Your task to perform on an android device: Go to notification settings Image 0: 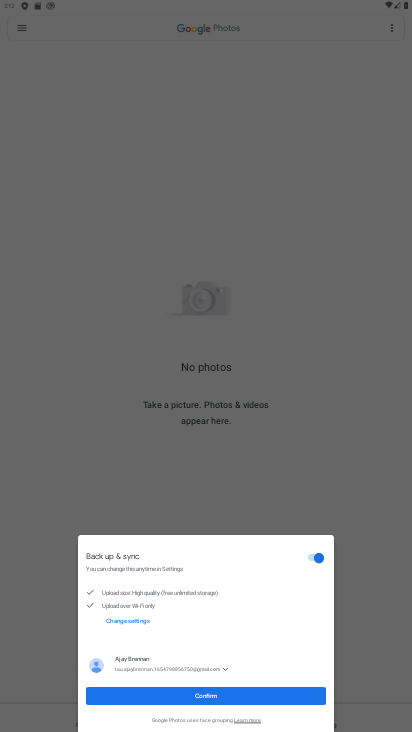
Step 0: press home button
Your task to perform on an android device: Go to notification settings Image 1: 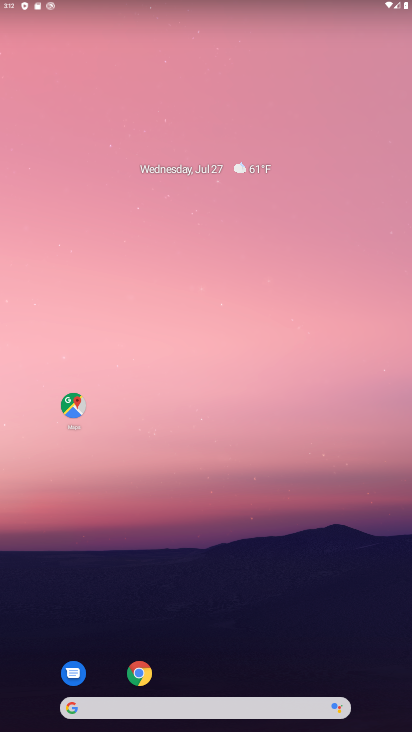
Step 1: drag from (354, 528) to (286, 12)
Your task to perform on an android device: Go to notification settings Image 2: 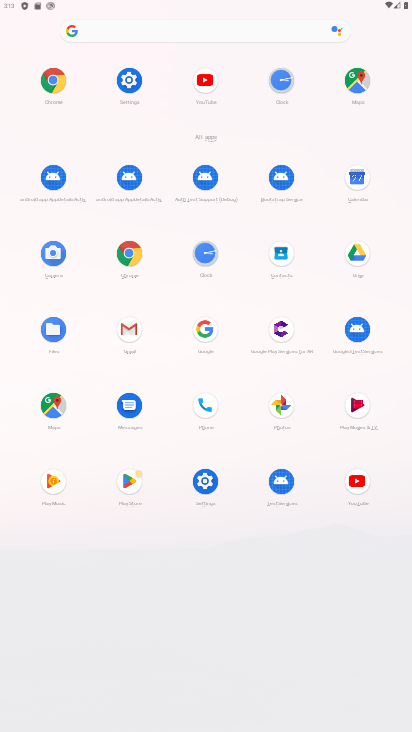
Step 2: click (205, 478)
Your task to perform on an android device: Go to notification settings Image 3: 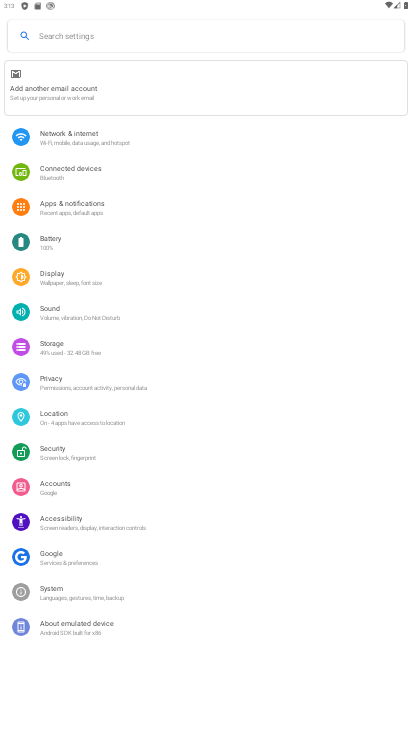
Step 3: click (87, 200)
Your task to perform on an android device: Go to notification settings Image 4: 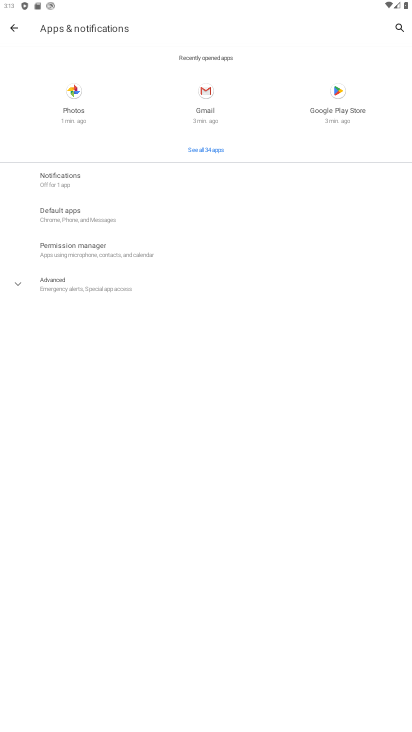
Step 4: click (118, 177)
Your task to perform on an android device: Go to notification settings Image 5: 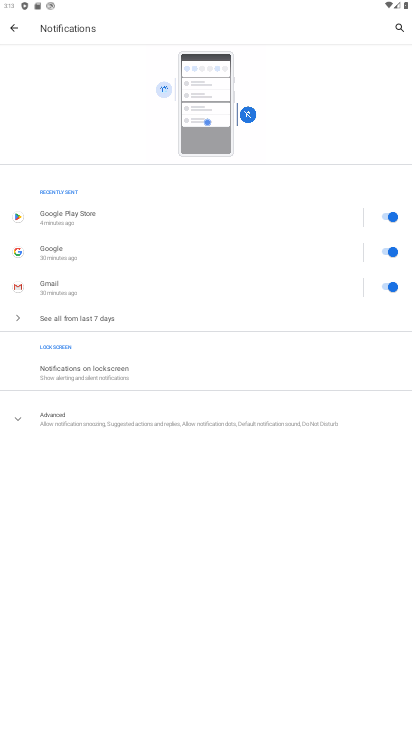
Step 5: task complete